Your task to perform on an android device: Open Yahoo.com Image 0: 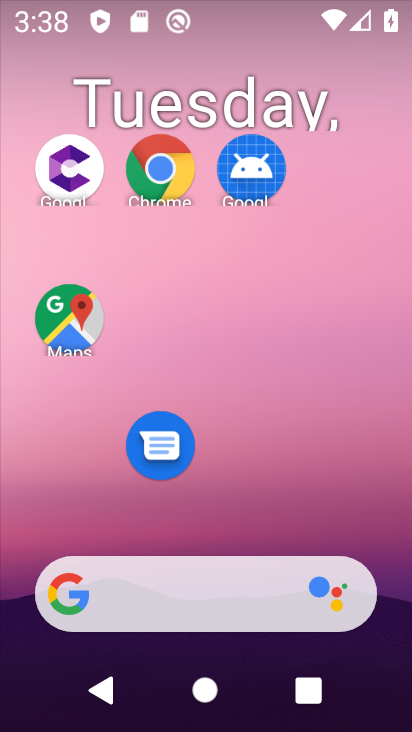
Step 0: click (164, 173)
Your task to perform on an android device: Open Yahoo.com Image 1: 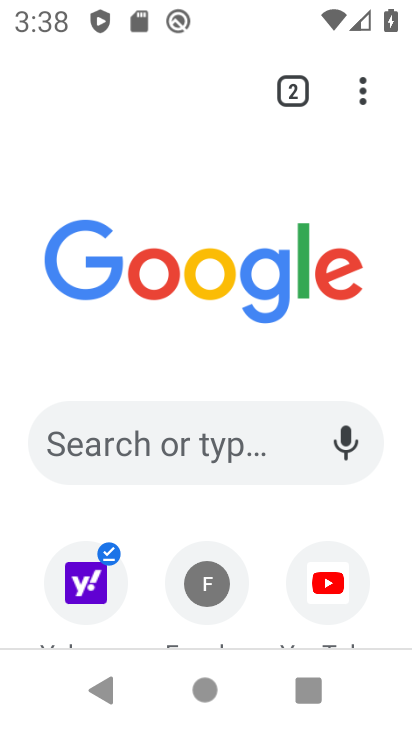
Step 1: click (87, 590)
Your task to perform on an android device: Open Yahoo.com Image 2: 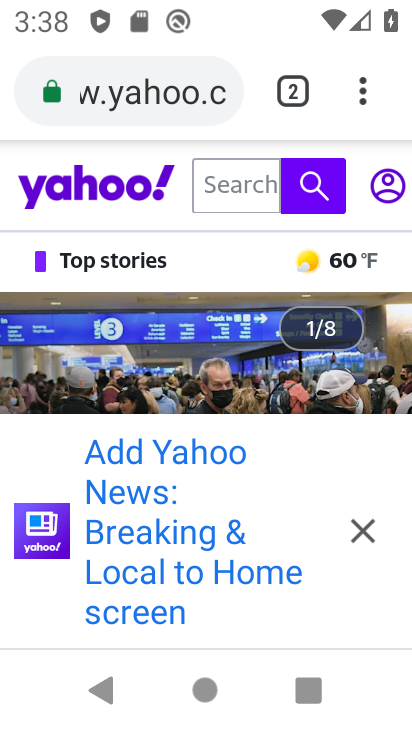
Step 2: task complete